Your task to perform on an android device: Search for sushi restaurants on Maps Image 0: 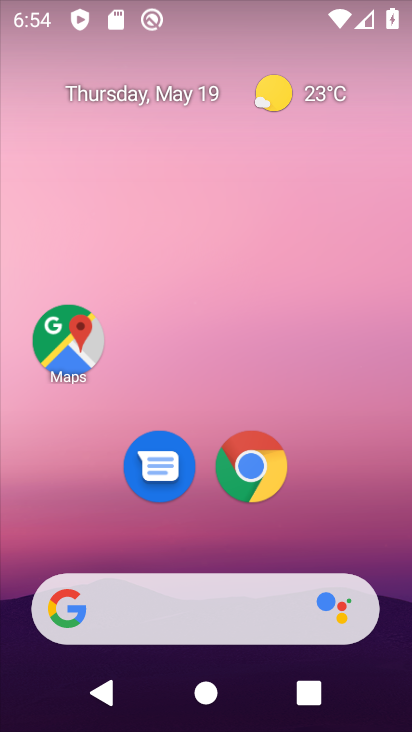
Step 0: drag from (342, 572) to (289, 6)
Your task to perform on an android device: Search for sushi restaurants on Maps Image 1: 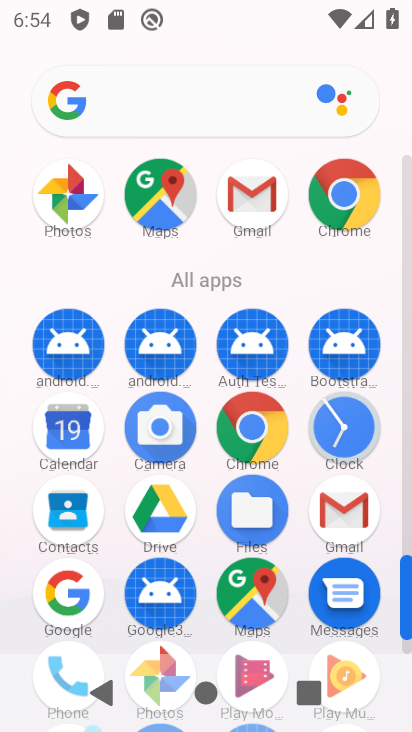
Step 1: click (247, 596)
Your task to perform on an android device: Search for sushi restaurants on Maps Image 2: 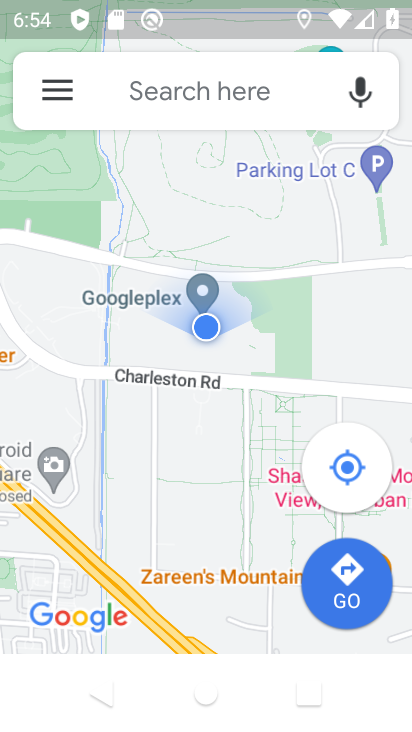
Step 2: click (189, 103)
Your task to perform on an android device: Search for sushi restaurants on Maps Image 3: 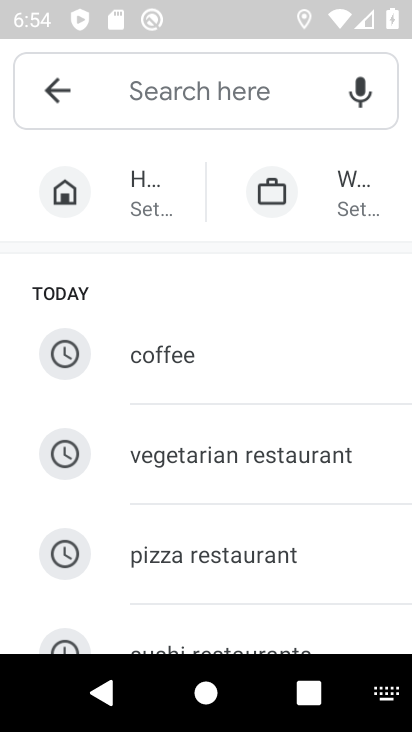
Step 3: click (211, 638)
Your task to perform on an android device: Search for sushi restaurants on Maps Image 4: 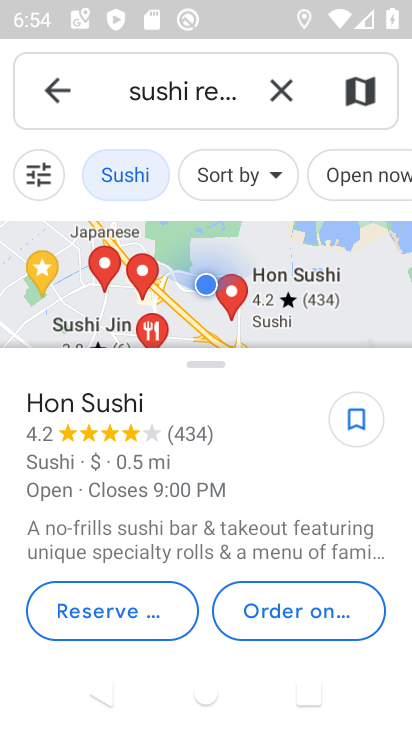
Step 4: task complete